Your task to perform on an android device: Do I have any events today? Image 0: 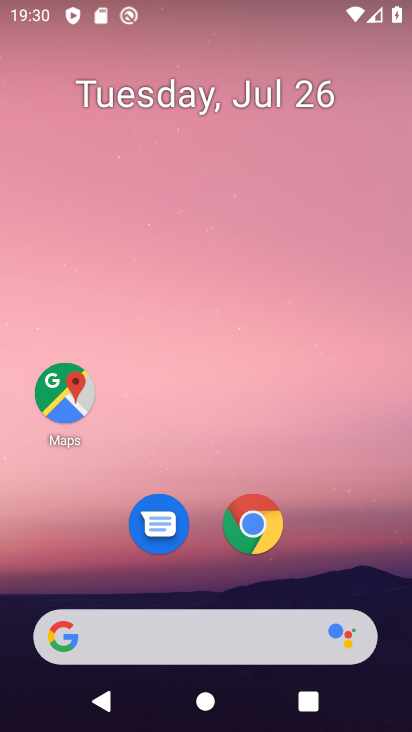
Step 0: press home button
Your task to perform on an android device: Do I have any events today? Image 1: 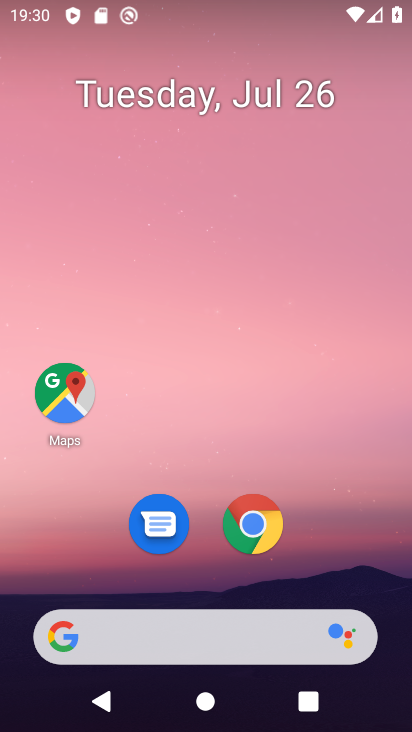
Step 1: drag from (206, 623) to (355, 99)
Your task to perform on an android device: Do I have any events today? Image 2: 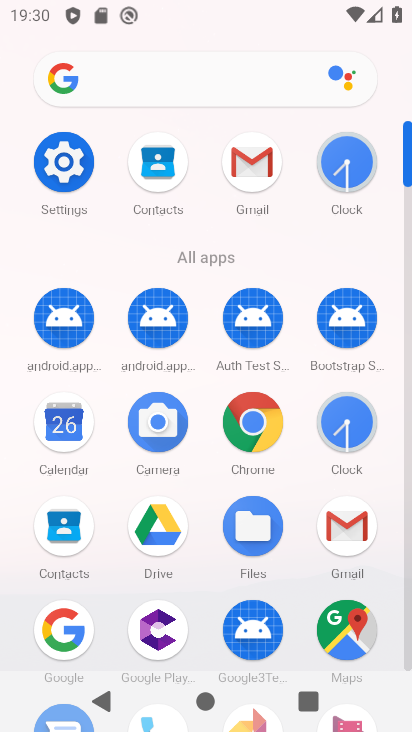
Step 2: click (59, 439)
Your task to perform on an android device: Do I have any events today? Image 3: 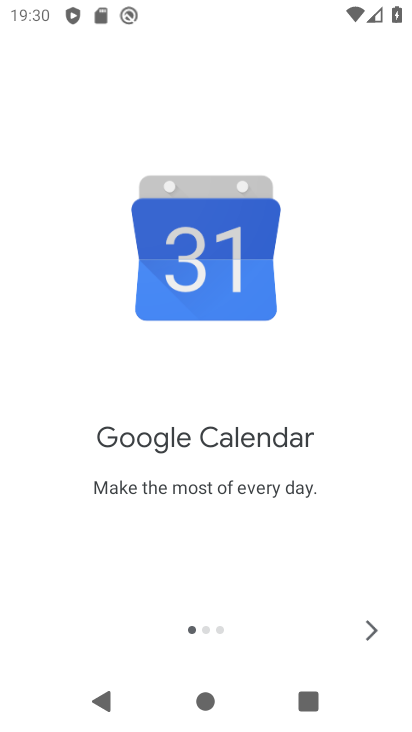
Step 3: click (375, 629)
Your task to perform on an android device: Do I have any events today? Image 4: 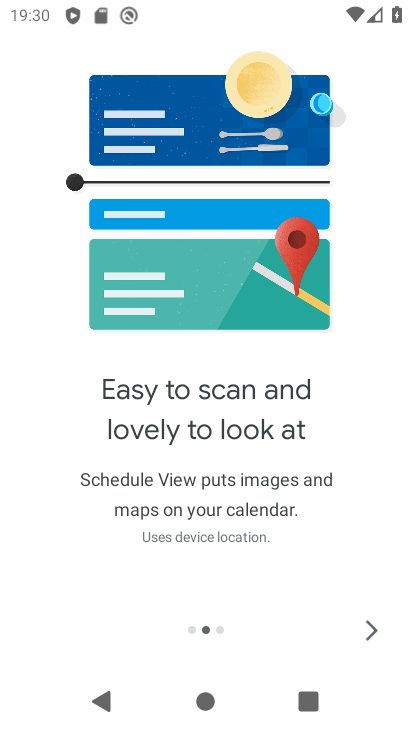
Step 4: click (375, 629)
Your task to perform on an android device: Do I have any events today? Image 5: 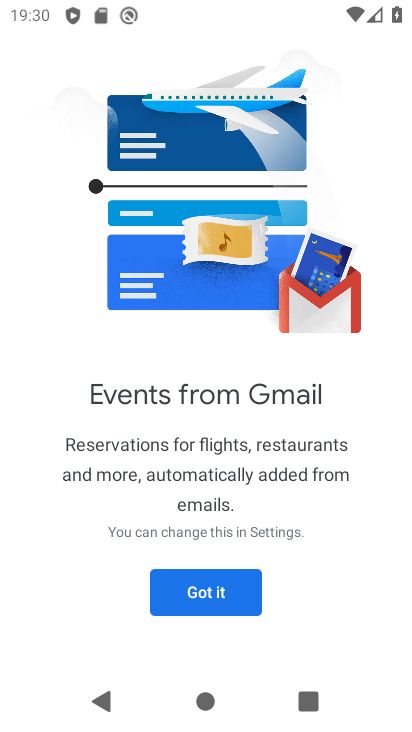
Step 5: click (217, 586)
Your task to perform on an android device: Do I have any events today? Image 6: 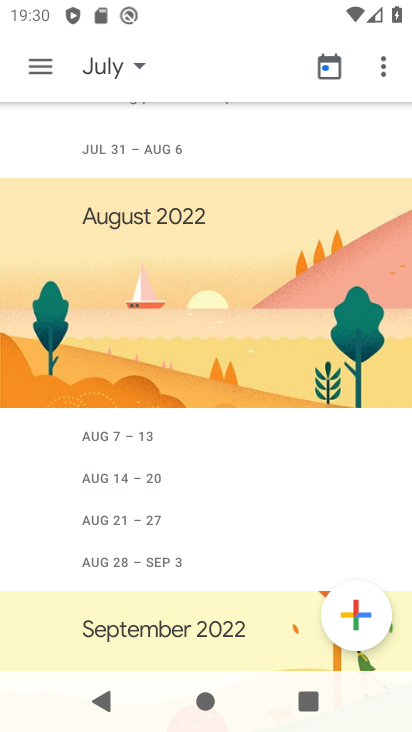
Step 6: click (110, 71)
Your task to perform on an android device: Do I have any events today? Image 7: 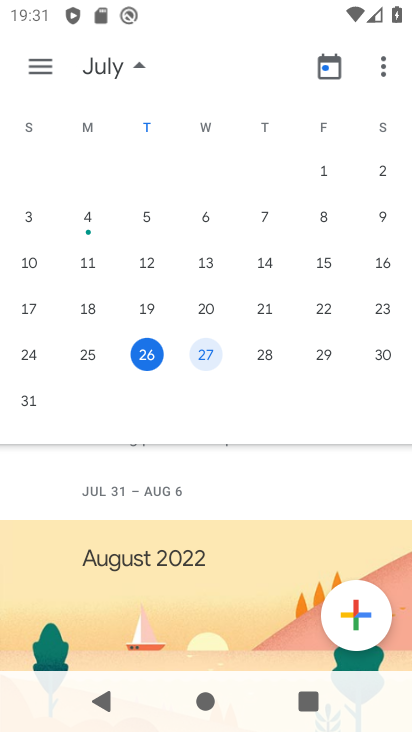
Step 7: click (151, 356)
Your task to perform on an android device: Do I have any events today? Image 8: 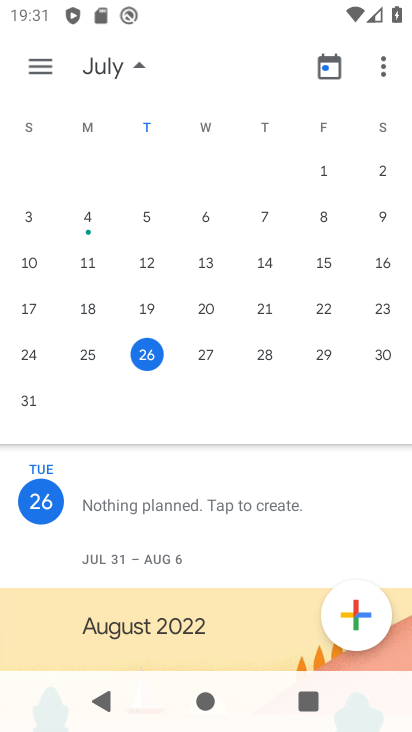
Step 8: click (42, 52)
Your task to perform on an android device: Do I have any events today? Image 9: 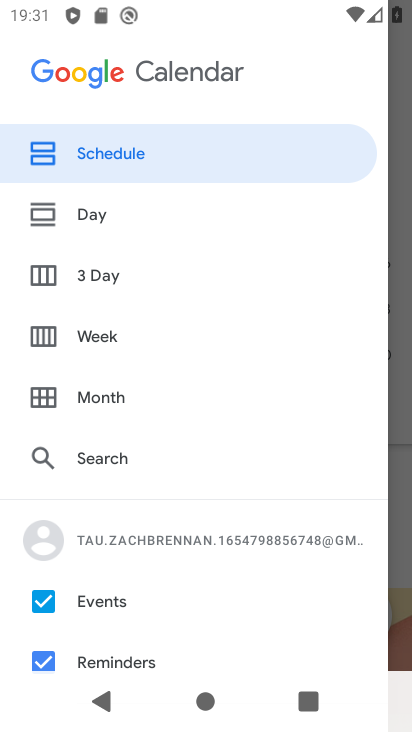
Step 9: click (101, 153)
Your task to perform on an android device: Do I have any events today? Image 10: 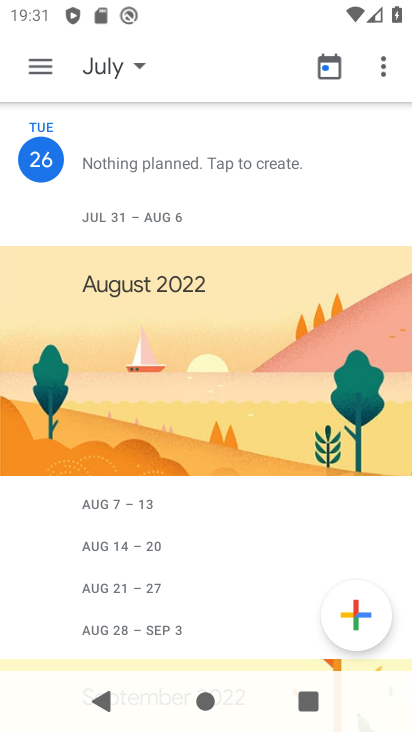
Step 10: task complete